Your task to perform on an android device: Open Youtube and go to "Your channel" Image 0: 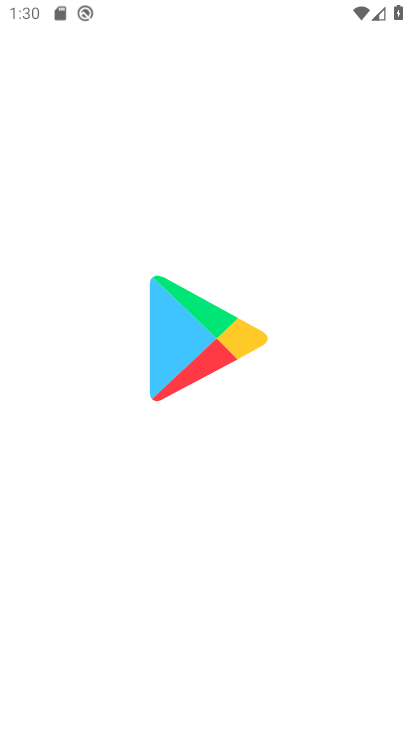
Step 0: drag from (205, 623) to (214, 197)
Your task to perform on an android device: Open Youtube and go to "Your channel" Image 1: 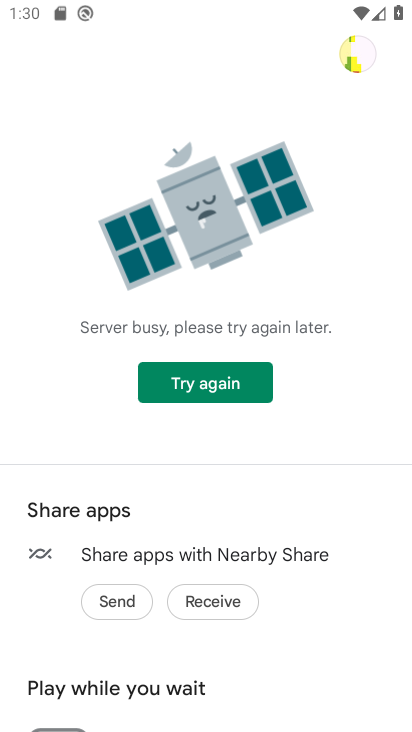
Step 1: press home button
Your task to perform on an android device: Open Youtube and go to "Your channel" Image 2: 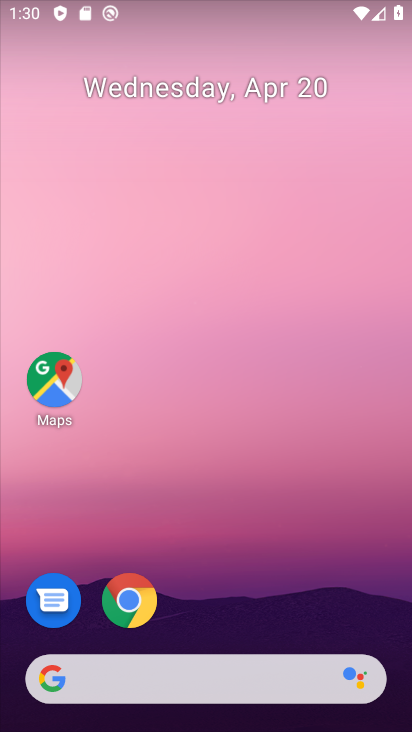
Step 2: drag from (290, 549) to (354, 63)
Your task to perform on an android device: Open Youtube and go to "Your channel" Image 3: 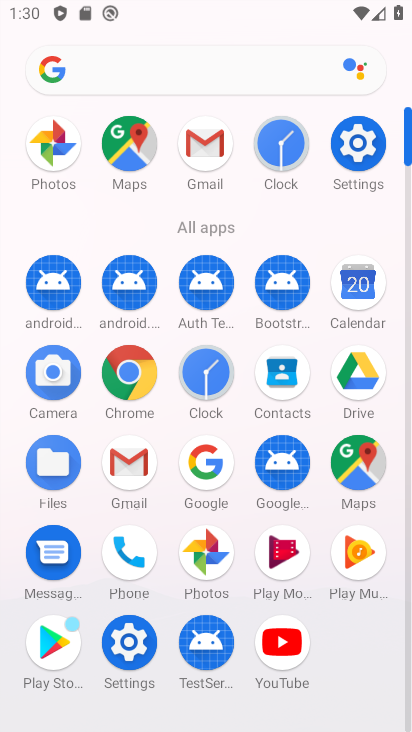
Step 3: click (278, 645)
Your task to perform on an android device: Open Youtube and go to "Your channel" Image 4: 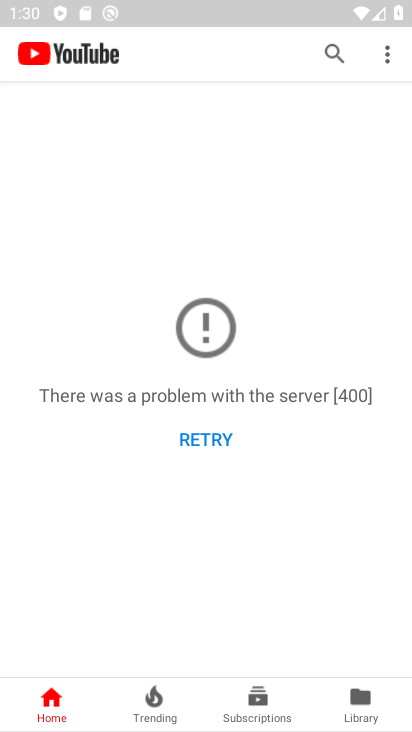
Step 4: task complete